Your task to perform on an android device: turn off airplane mode Image 0: 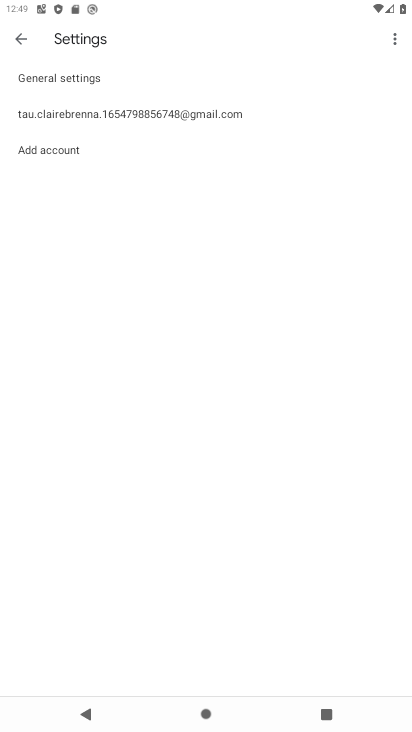
Step 0: press home button
Your task to perform on an android device: turn off airplane mode Image 1: 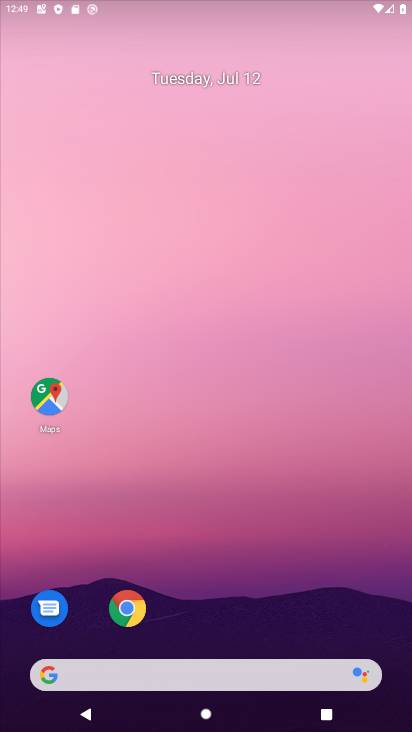
Step 1: drag from (213, 603) to (192, 278)
Your task to perform on an android device: turn off airplane mode Image 2: 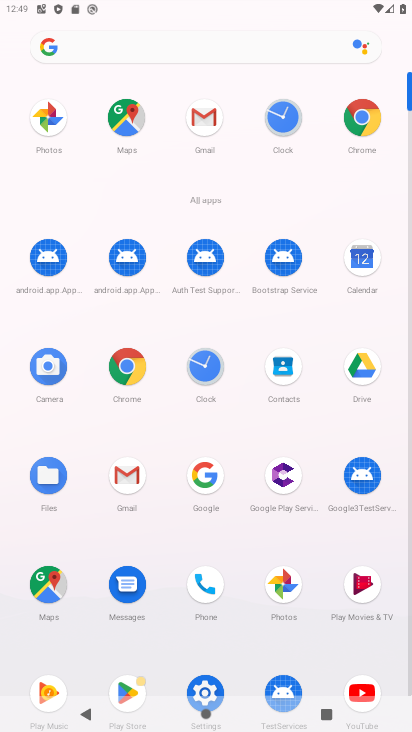
Step 2: click (209, 678)
Your task to perform on an android device: turn off airplane mode Image 3: 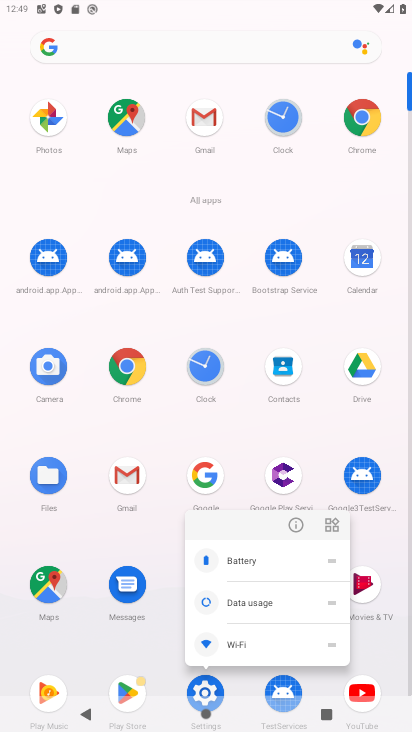
Step 3: click (202, 685)
Your task to perform on an android device: turn off airplane mode Image 4: 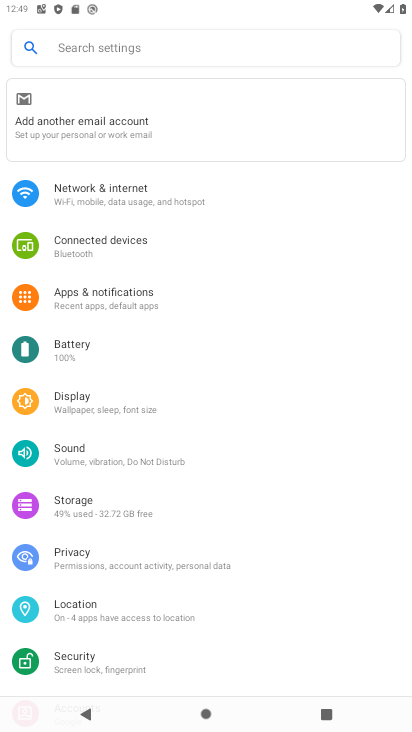
Step 4: click (112, 197)
Your task to perform on an android device: turn off airplane mode Image 5: 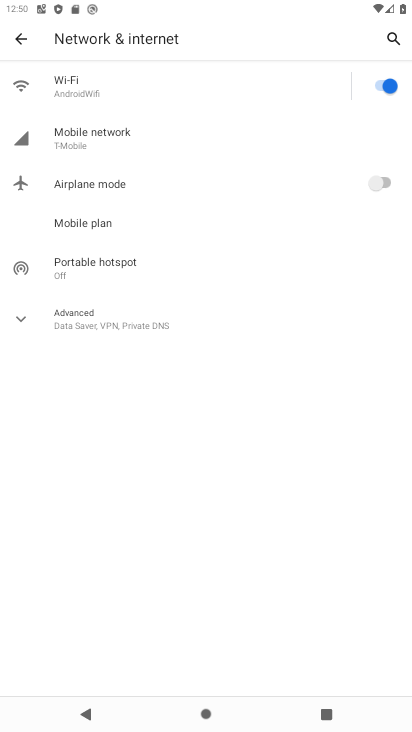
Step 5: task complete